Your task to perform on an android device: refresh tabs in the chrome app Image 0: 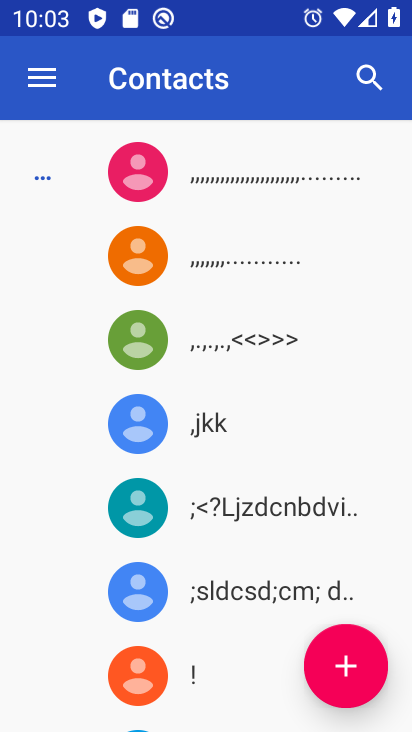
Step 0: press home button
Your task to perform on an android device: refresh tabs in the chrome app Image 1: 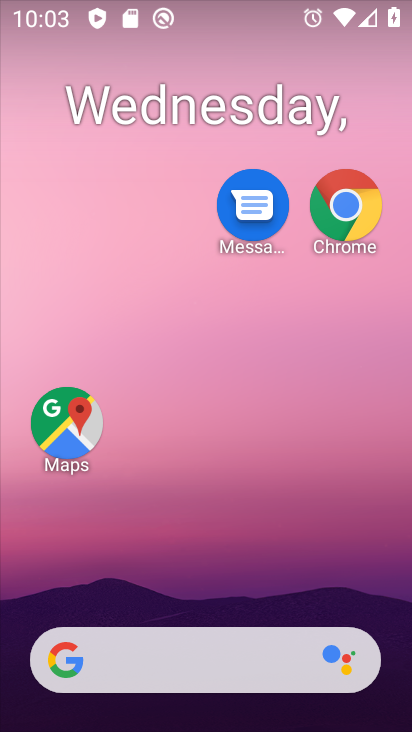
Step 1: drag from (213, 560) to (120, 0)
Your task to perform on an android device: refresh tabs in the chrome app Image 2: 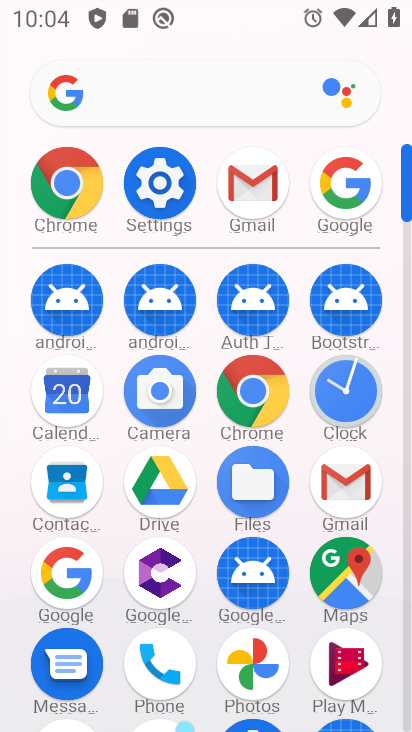
Step 2: click (252, 384)
Your task to perform on an android device: refresh tabs in the chrome app Image 3: 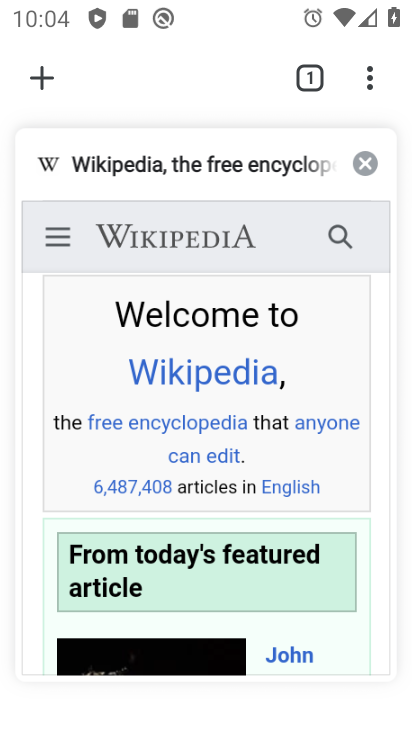
Step 3: drag from (288, 677) to (295, 100)
Your task to perform on an android device: refresh tabs in the chrome app Image 4: 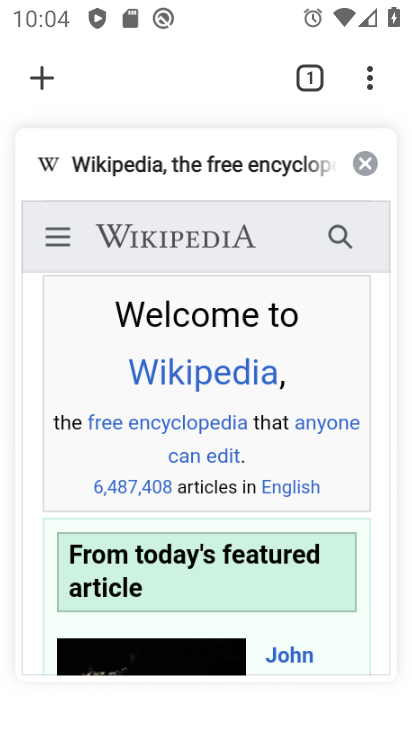
Step 4: click (316, 325)
Your task to perform on an android device: refresh tabs in the chrome app Image 5: 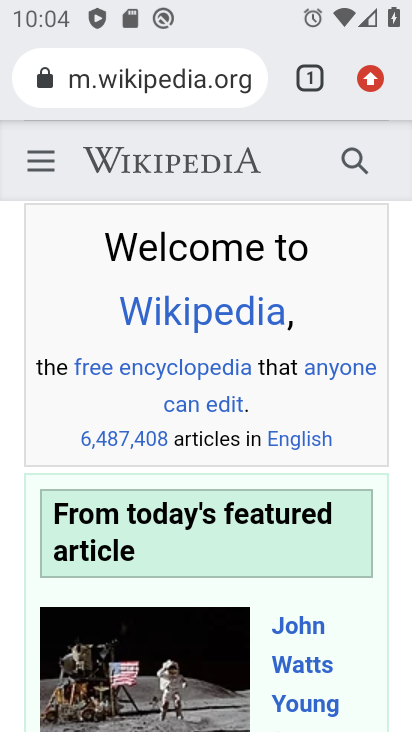
Step 5: click (370, 72)
Your task to perform on an android device: refresh tabs in the chrome app Image 6: 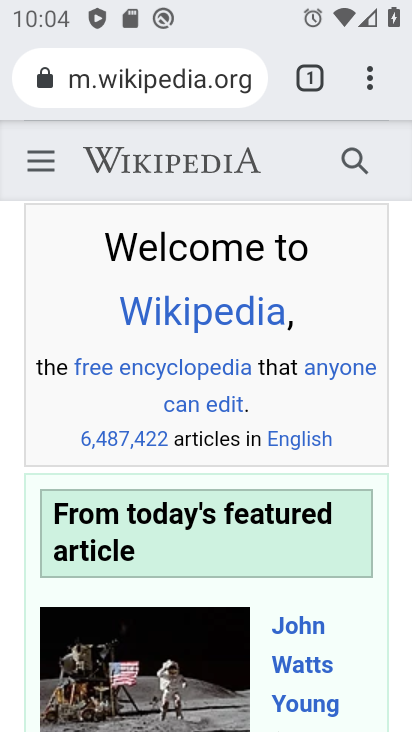
Step 6: task complete